Your task to perform on an android device: Search for hotels in Buenos aires Image 0: 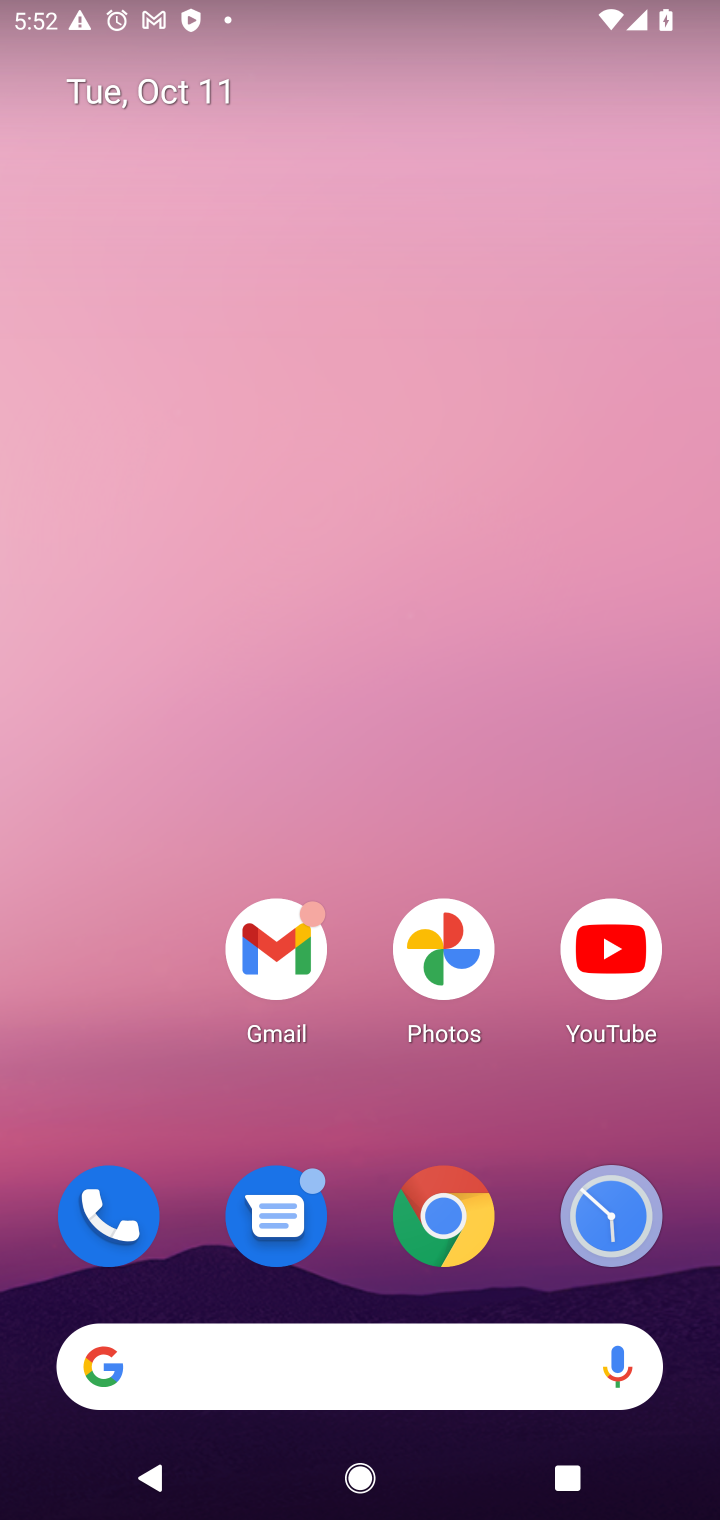
Step 0: click (442, 1210)
Your task to perform on an android device: Search for hotels in Buenos aires Image 1: 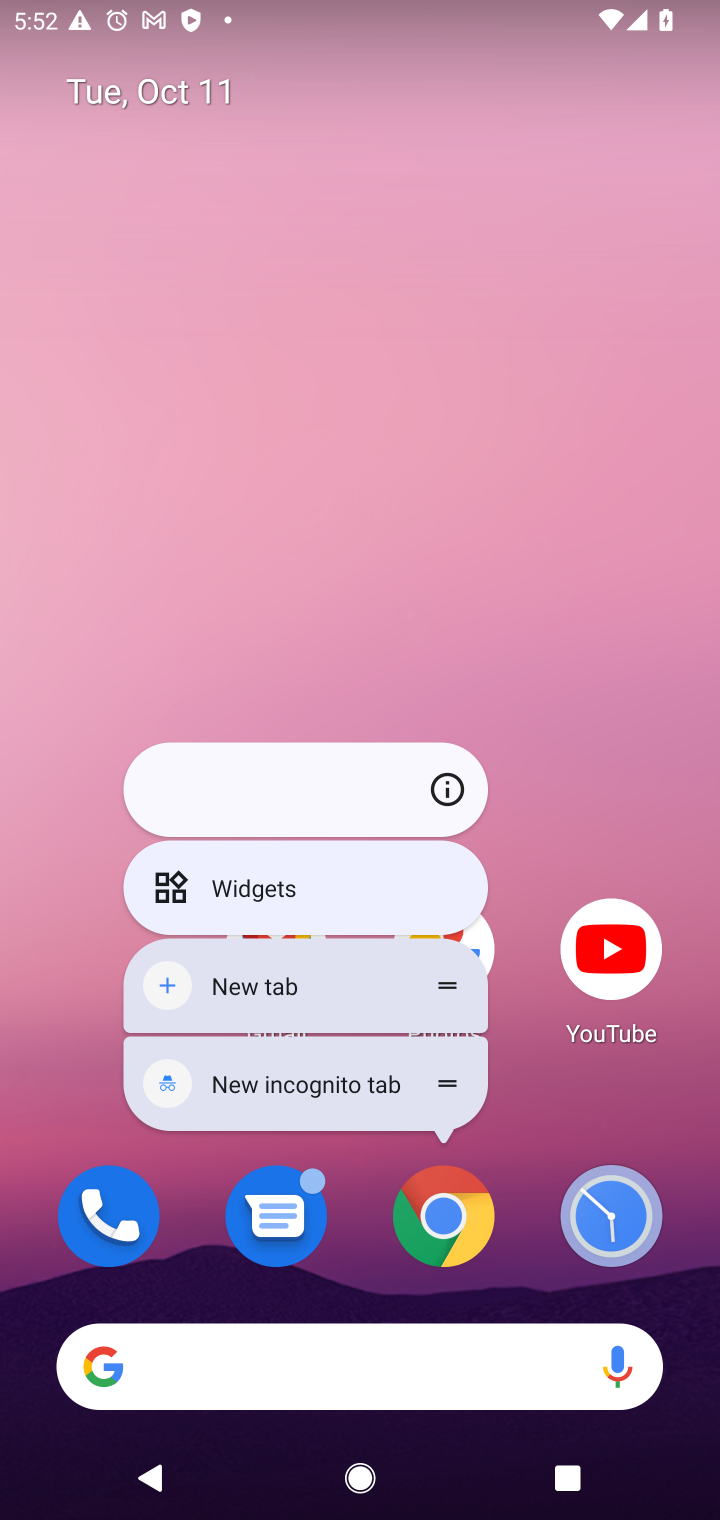
Step 1: click (427, 1219)
Your task to perform on an android device: Search for hotels in Buenos aires Image 2: 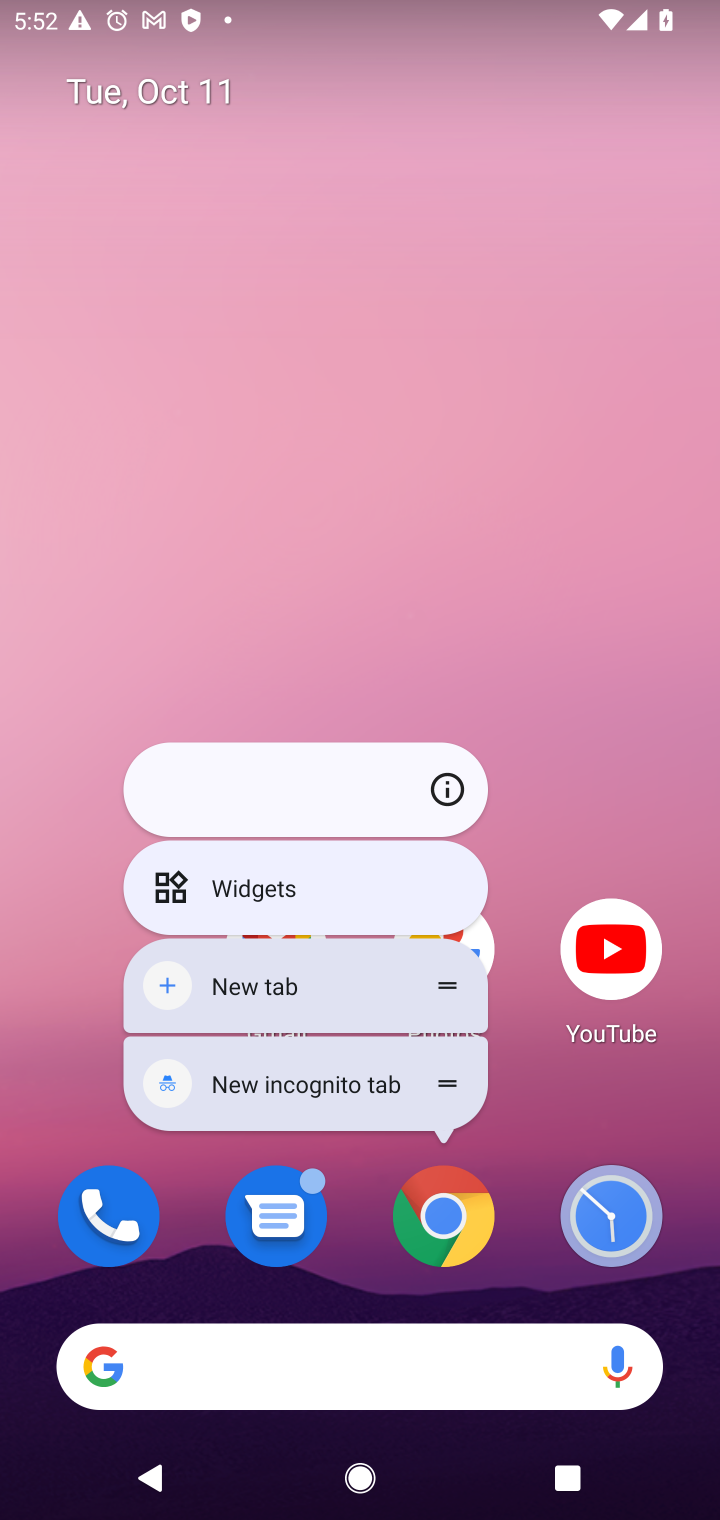
Step 2: click (424, 1248)
Your task to perform on an android device: Search for hotels in Buenos aires Image 3: 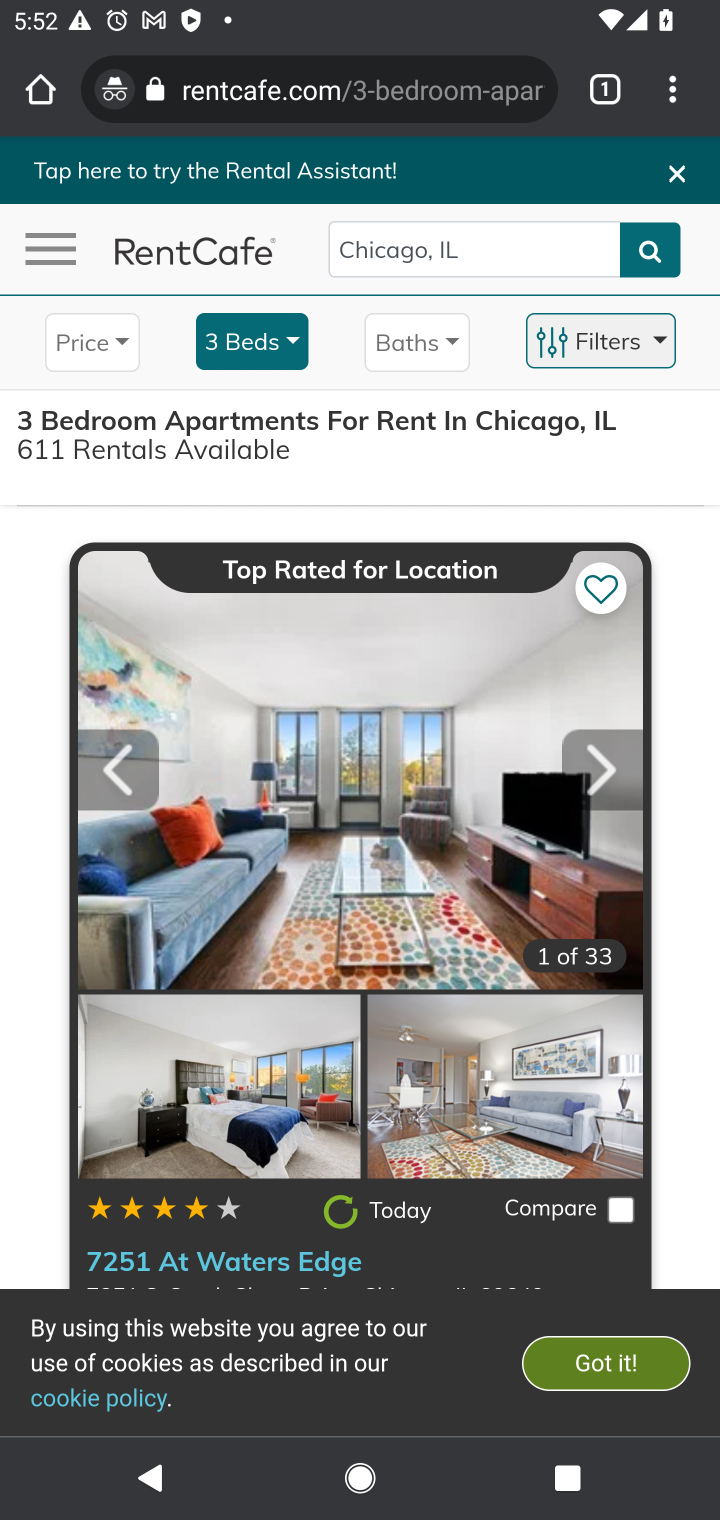
Step 3: click (382, 104)
Your task to perform on an android device: Search for hotels in Buenos aires Image 4: 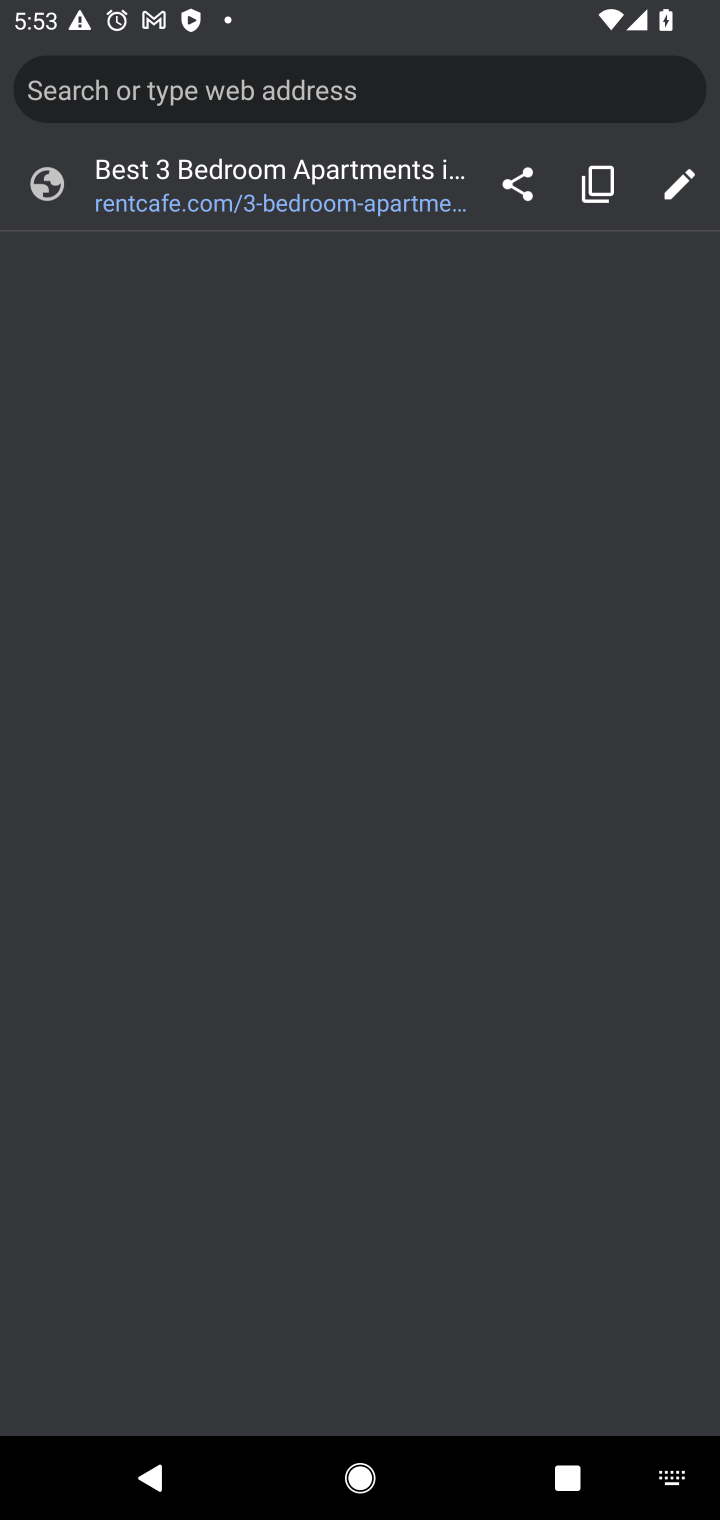
Step 4: type "hotels in Buenos aires"
Your task to perform on an android device: Search for hotels in Buenos aires Image 5: 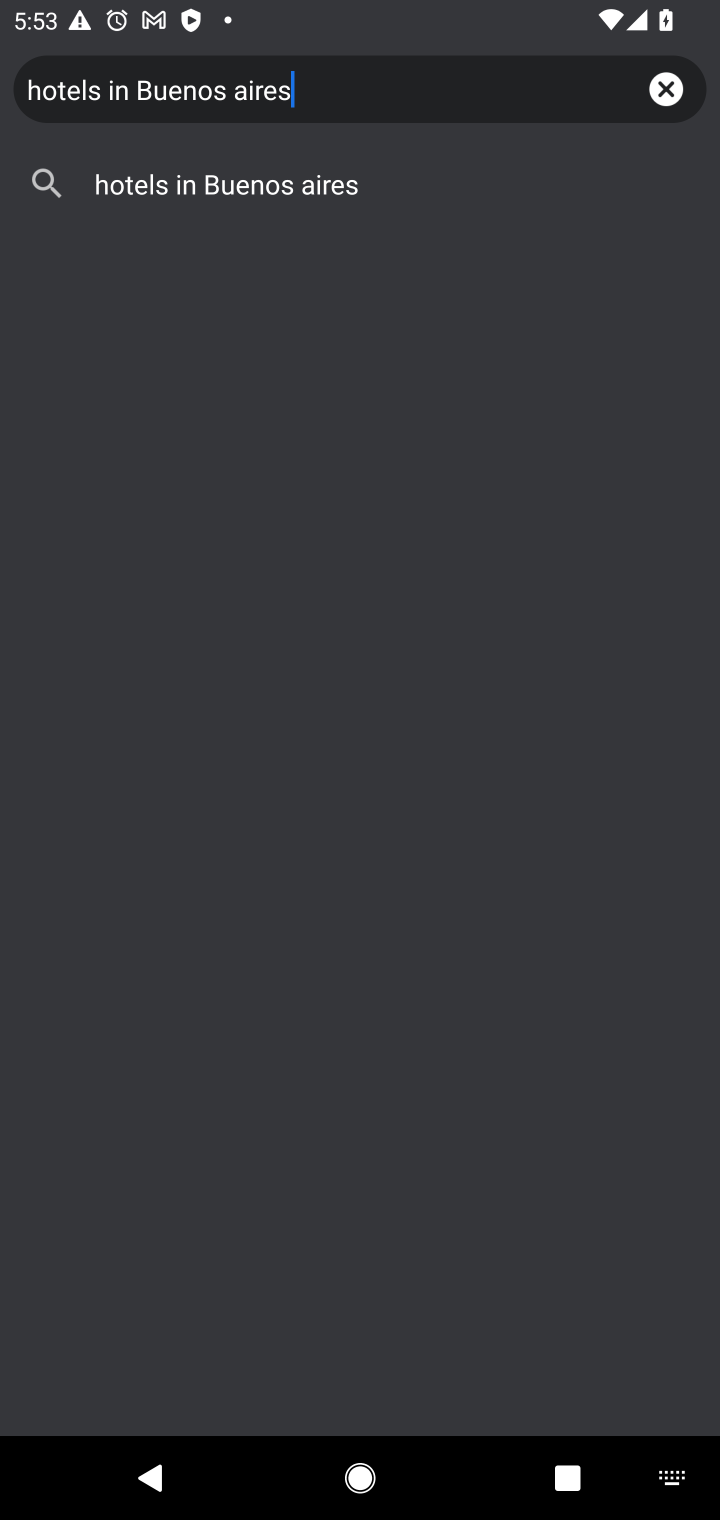
Step 5: press enter
Your task to perform on an android device: Search for hotels in Buenos aires Image 6: 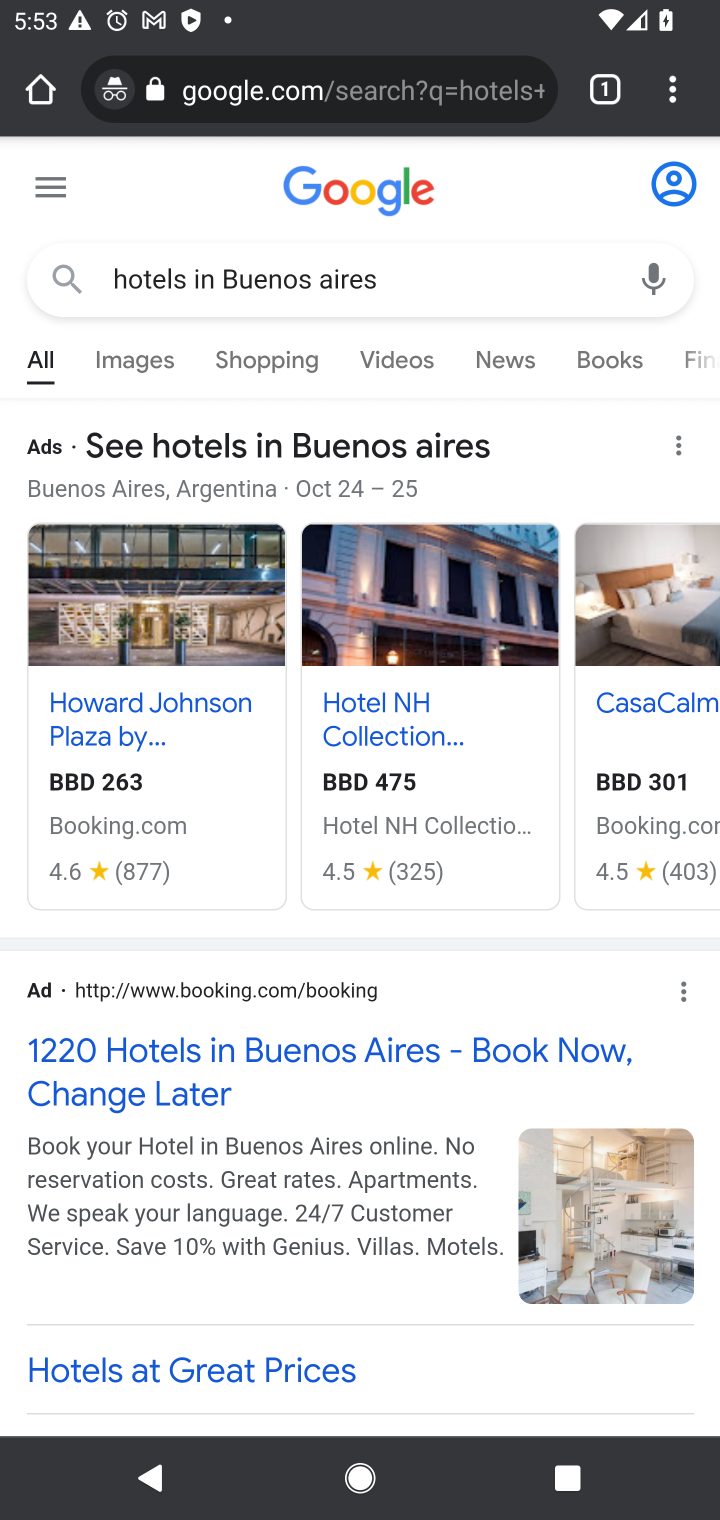
Step 6: task complete